Your task to perform on an android device: Open settings on Google Maps Image 0: 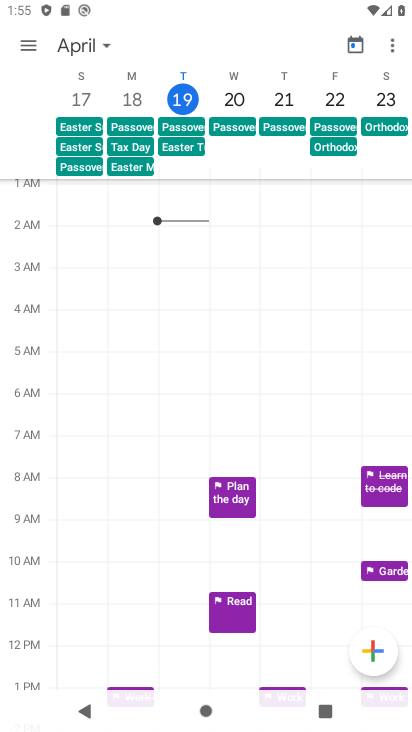
Step 0: press home button
Your task to perform on an android device: Open settings on Google Maps Image 1: 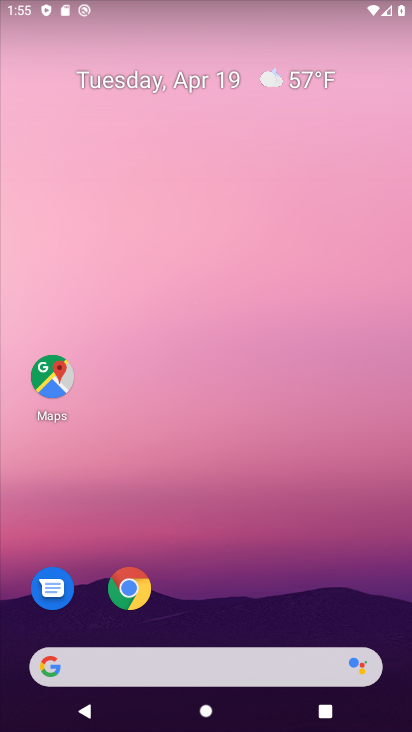
Step 1: click (49, 384)
Your task to perform on an android device: Open settings on Google Maps Image 2: 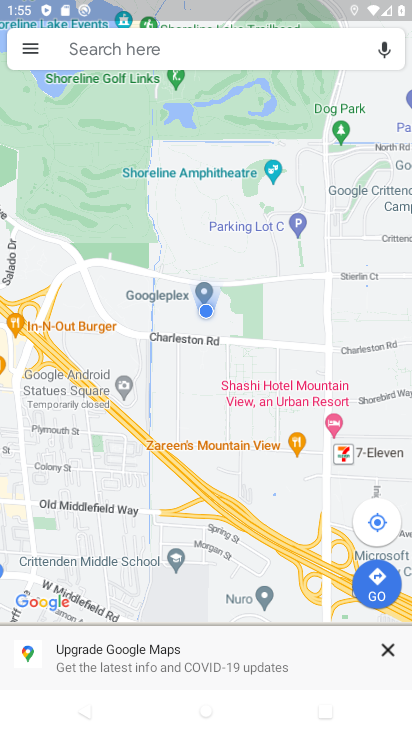
Step 2: click (31, 48)
Your task to perform on an android device: Open settings on Google Maps Image 3: 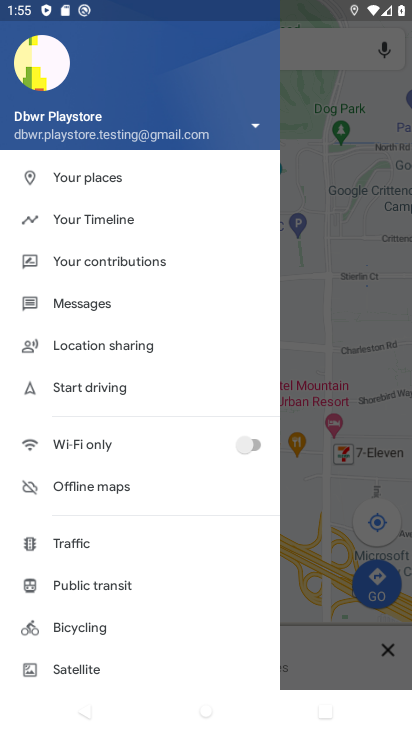
Step 3: drag from (183, 602) to (223, 281)
Your task to perform on an android device: Open settings on Google Maps Image 4: 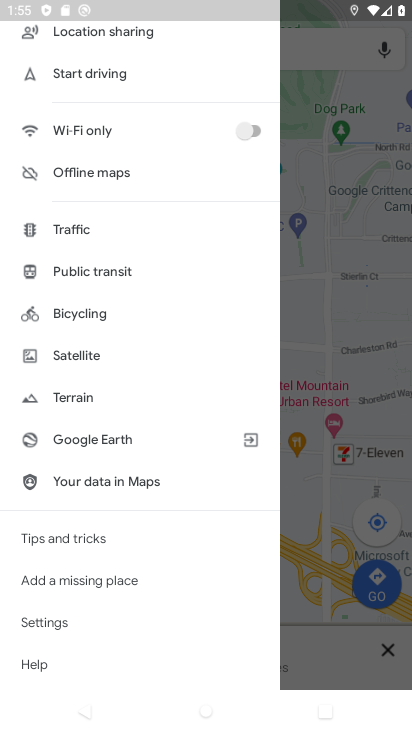
Step 4: click (78, 622)
Your task to perform on an android device: Open settings on Google Maps Image 5: 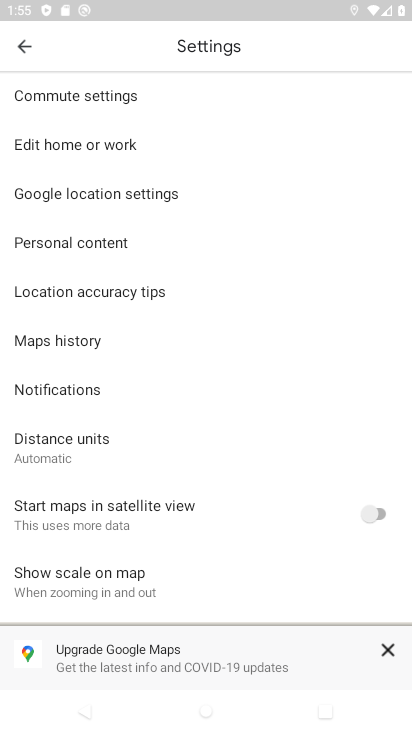
Step 5: task complete